Your task to perform on an android device: Go to accessibility settings Image 0: 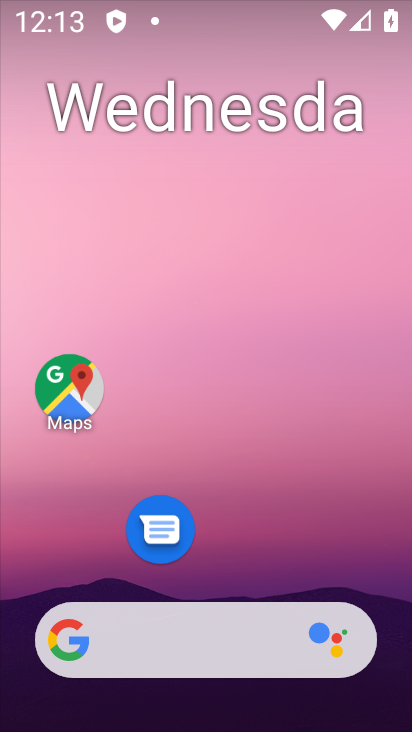
Step 0: drag from (213, 596) to (317, 22)
Your task to perform on an android device: Go to accessibility settings Image 1: 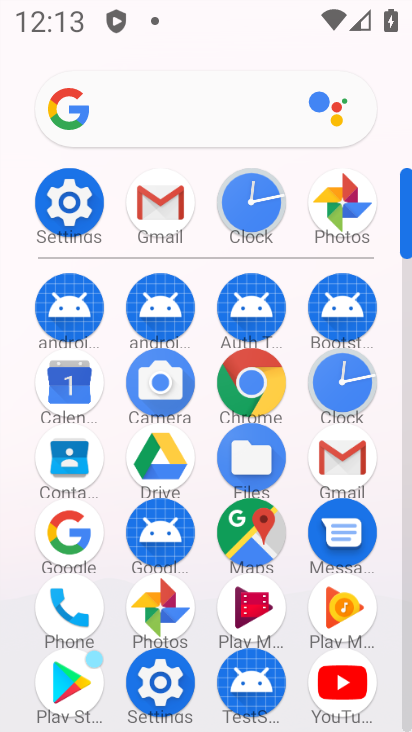
Step 1: click (79, 204)
Your task to perform on an android device: Go to accessibility settings Image 2: 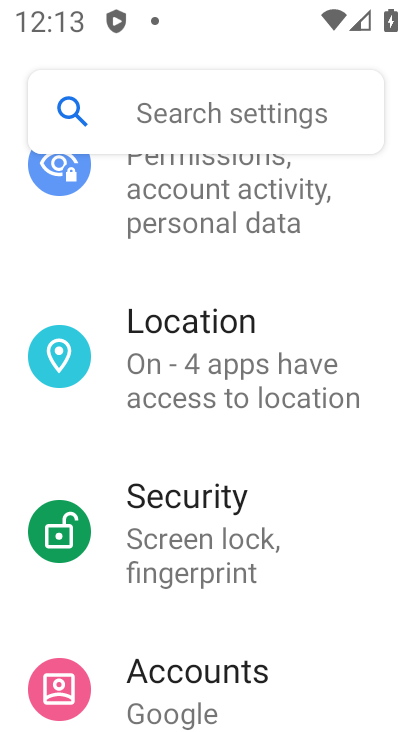
Step 2: drag from (176, 276) to (148, 597)
Your task to perform on an android device: Go to accessibility settings Image 3: 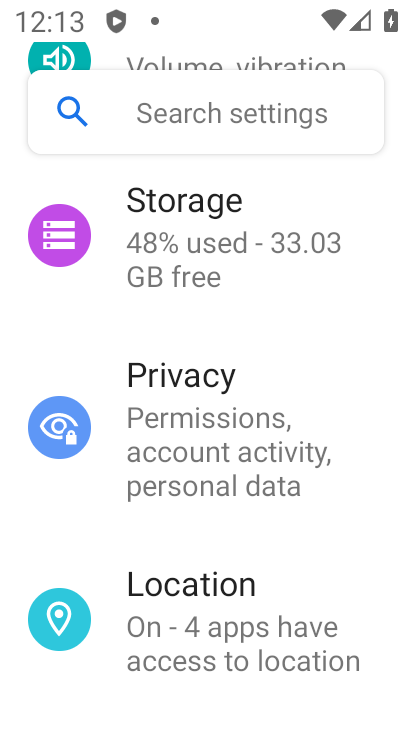
Step 3: drag from (228, 378) to (228, 681)
Your task to perform on an android device: Go to accessibility settings Image 4: 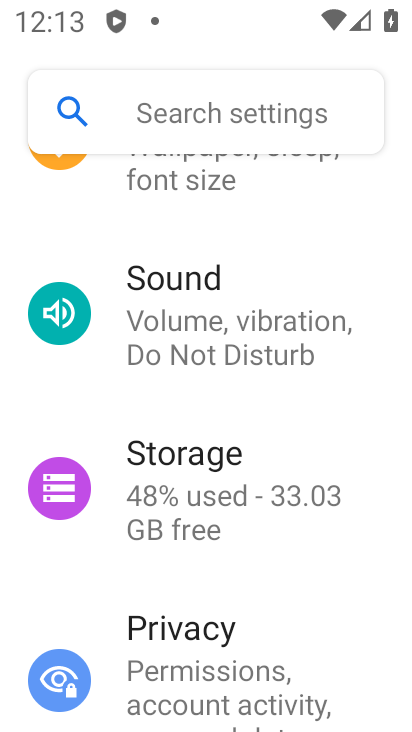
Step 4: click (292, 696)
Your task to perform on an android device: Go to accessibility settings Image 5: 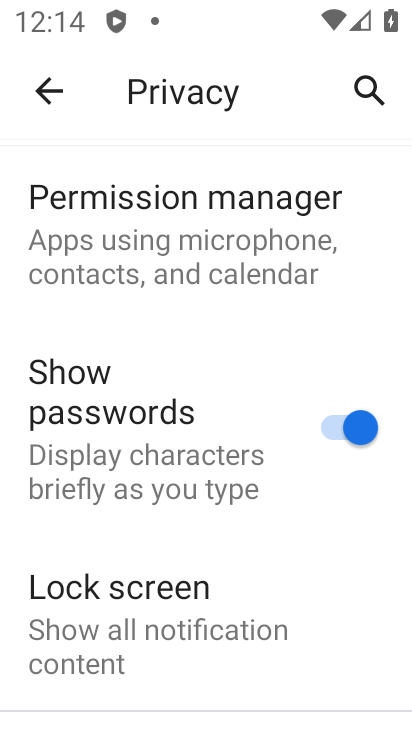
Step 5: click (64, 95)
Your task to perform on an android device: Go to accessibility settings Image 6: 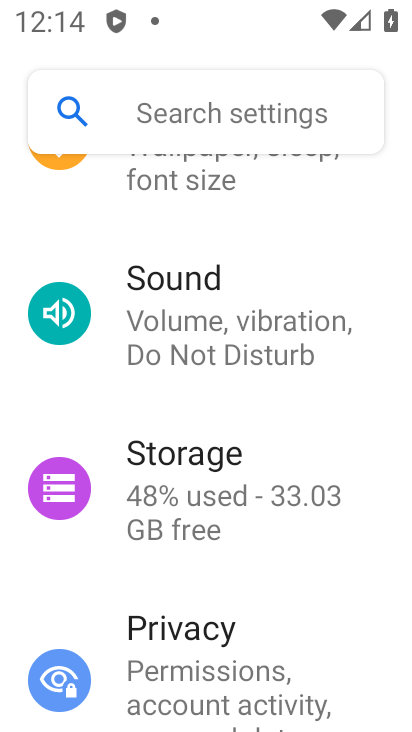
Step 6: drag from (153, 511) to (152, 25)
Your task to perform on an android device: Go to accessibility settings Image 7: 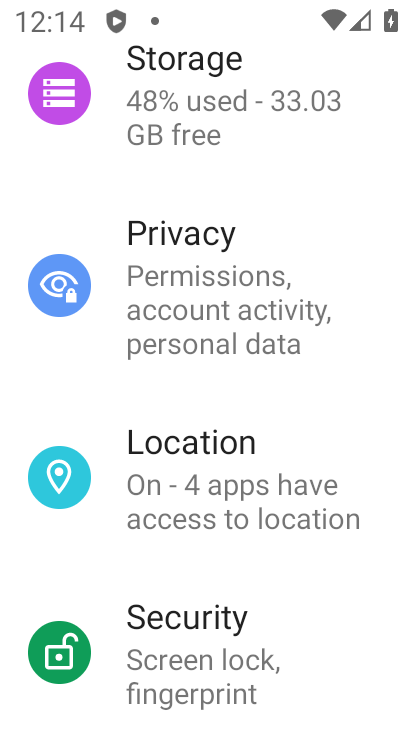
Step 7: drag from (281, 655) to (255, 21)
Your task to perform on an android device: Go to accessibility settings Image 8: 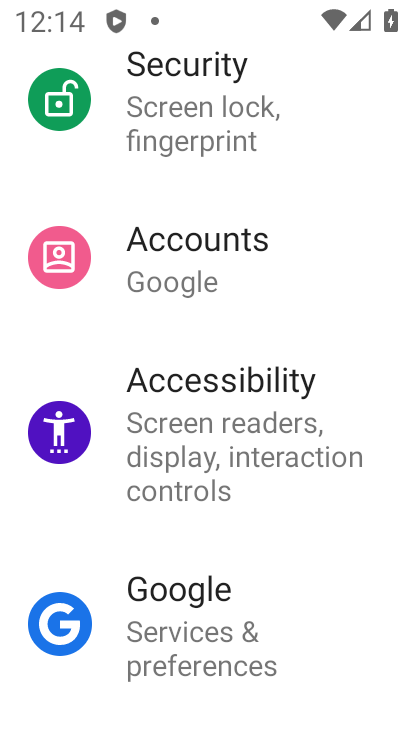
Step 8: click (249, 414)
Your task to perform on an android device: Go to accessibility settings Image 9: 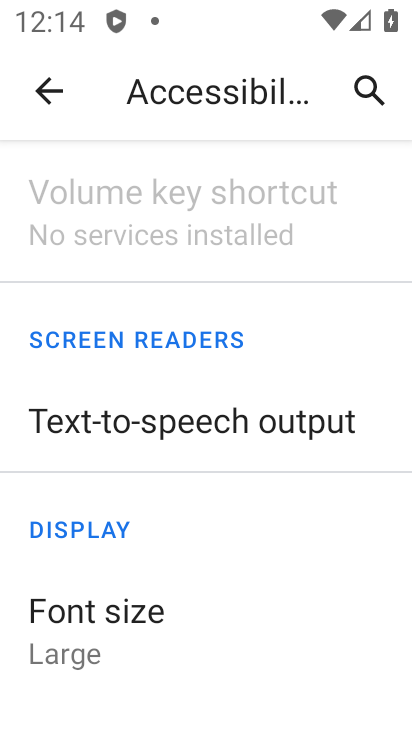
Step 9: task complete